Your task to perform on an android device: turn off improve location accuracy Image 0: 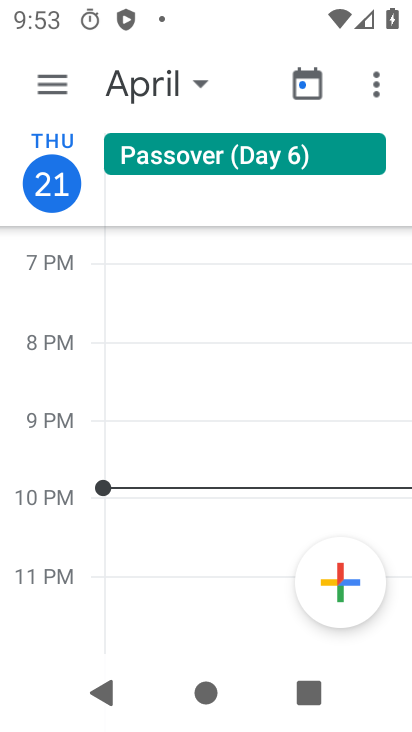
Step 0: press home button
Your task to perform on an android device: turn off improve location accuracy Image 1: 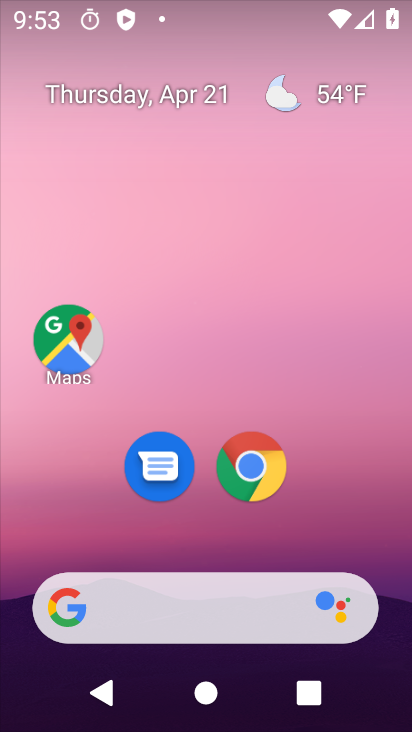
Step 1: drag from (364, 498) to (405, 91)
Your task to perform on an android device: turn off improve location accuracy Image 2: 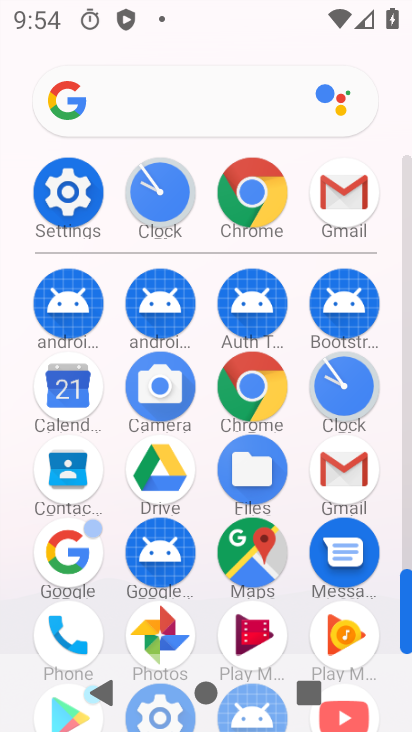
Step 2: click (73, 196)
Your task to perform on an android device: turn off improve location accuracy Image 3: 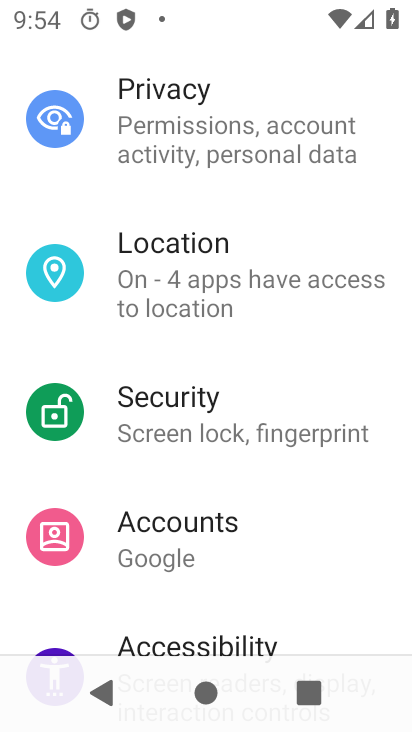
Step 3: drag from (267, 554) to (282, 274)
Your task to perform on an android device: turn off improve location accuracy Image 4: 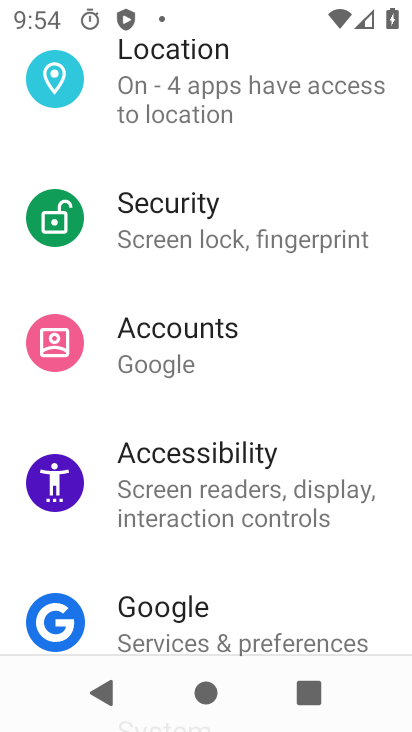
Step 4: click (202, 103)
Your task to perform on an android device: turn off improve location accuracy Image 5: 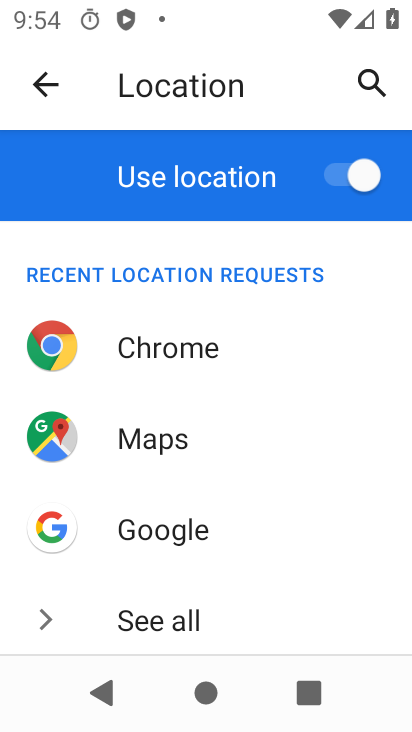
Step 5: drag from (236, 569) to (238, 328)
Your task to perform on an android device: turn off improve location accuracy Image 6: 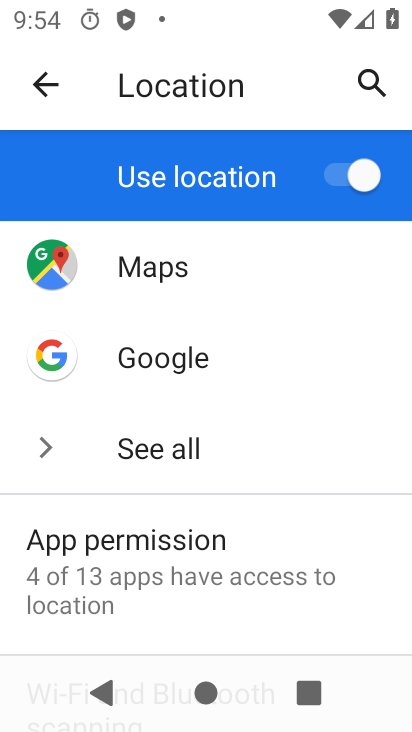
Step 6: drag from (271, 564) to (276, 343)
Your task to perform on an android device: turn off improve location accuracy Image 7: 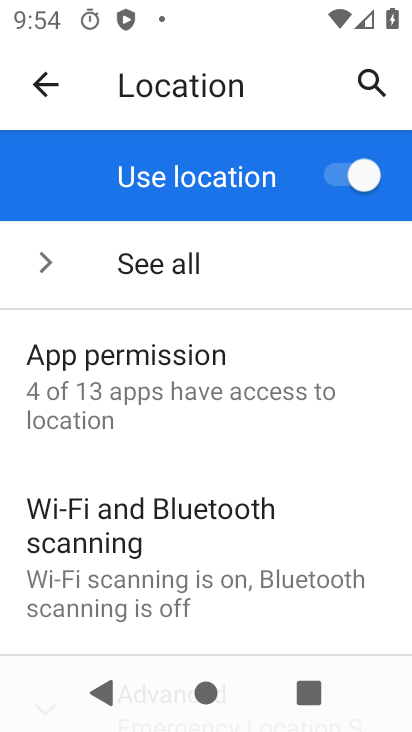
Step 7: drag from (285, 584) to (294, 355)
Your task to perform on an android device: turn off improve location accuracy Image 8: 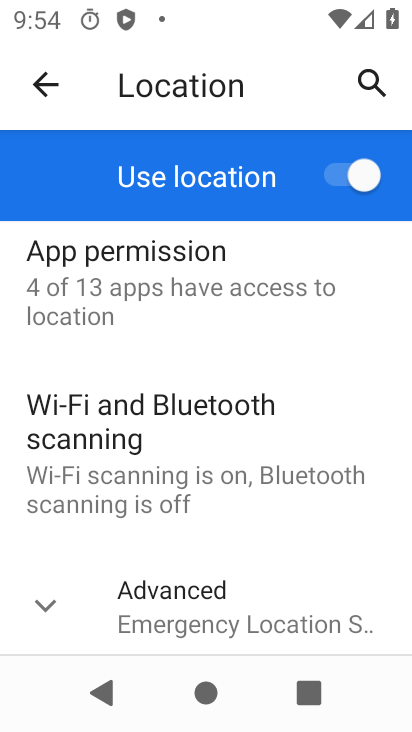
Step 8: drag from (287, 527) to (273, 350)
Your task to perform on an android device: turn off improve location accuracy Image 9: 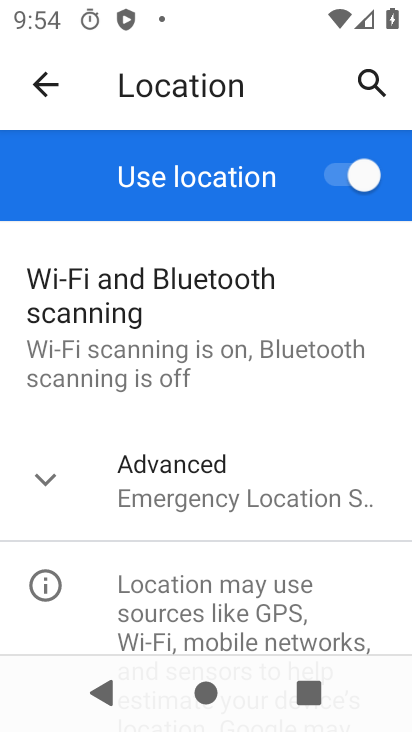
Step 9: click (211, 457)
Your task to perform on an android device: turn off improve location accuracy Image 10: 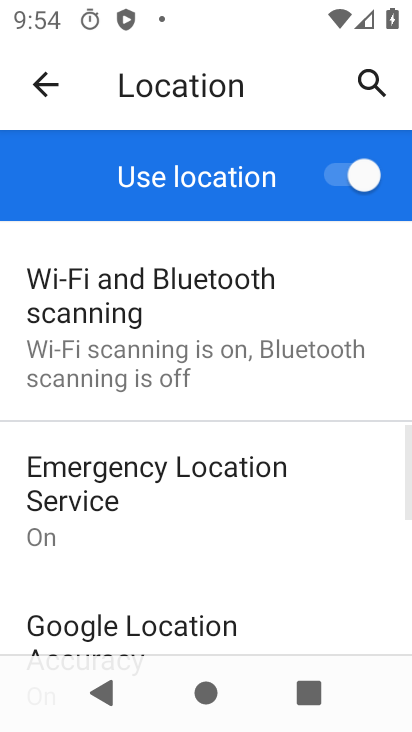
Step 10: drag from (226, 517) to (240, 332)
Your task to perform on an android device: turn off improve location accuracy Image 11: 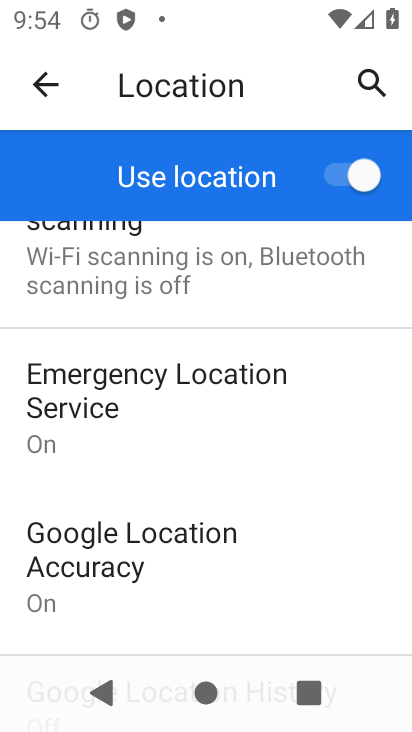
Step 11: drag from (250, 549) to (257, 317)
Your task to perform on an android device: turn off improve location accuracy Image 12: 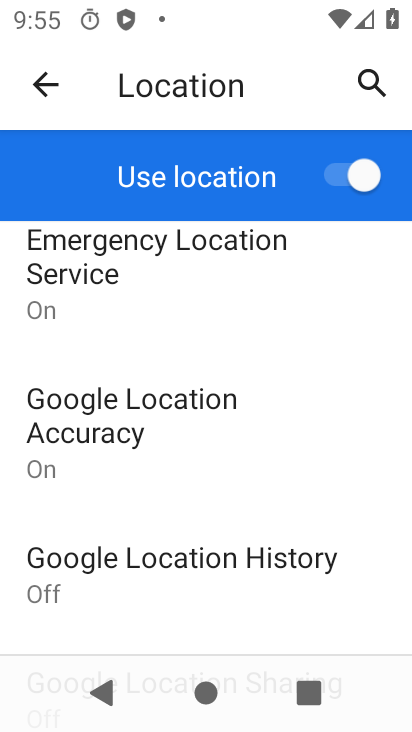
Step 12: click (161, 406)
Your task to perform on an android device: turn off improve location accuracy Image 13: 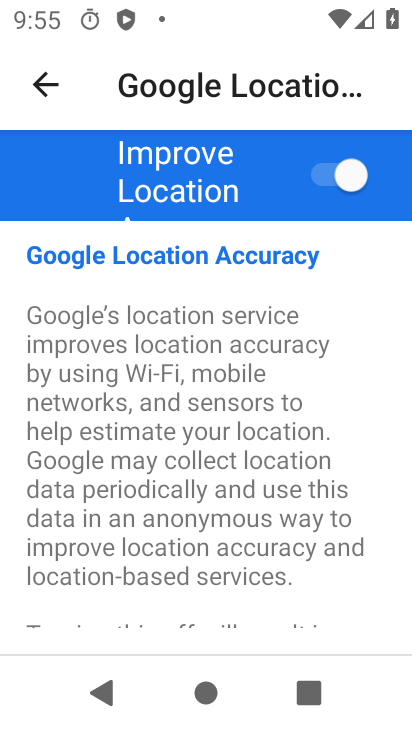
Step 13: click (328, 178)
Your task to perform on an android device: turn off improve location accuracy Image 14: 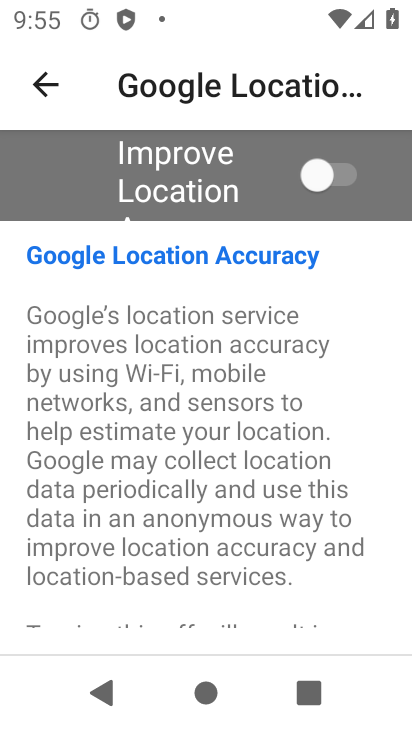
Step 14: task complete